Your task to perform on an android device: Check the weather Image 0: 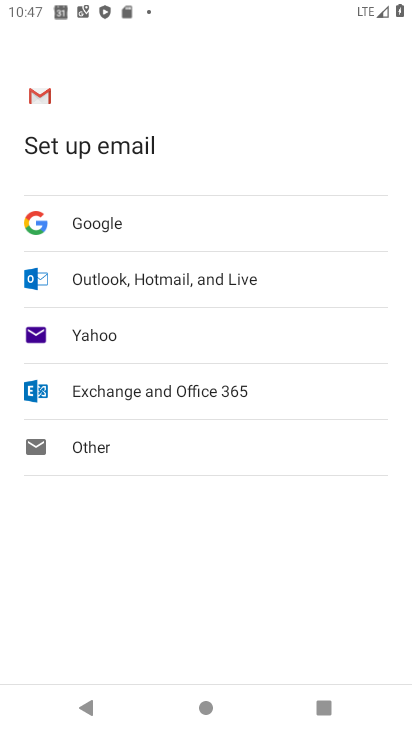
Step 0: press home button
Your task to perform on an android device: Check the weather Image 1: 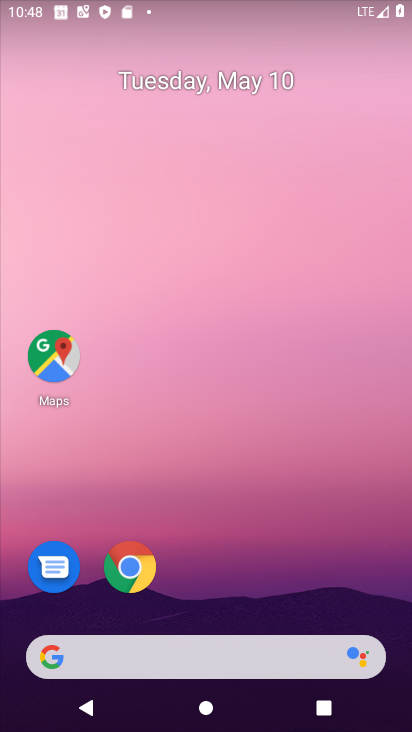
Step 1: click (100, 663)
Your task to perform on an android device: Check the weather Image 2: 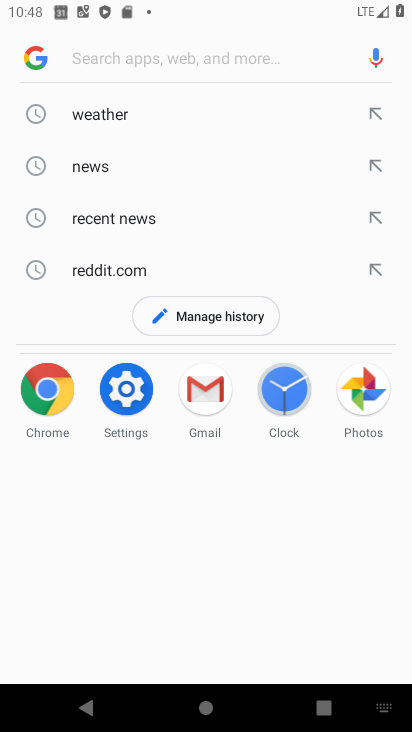
Step 2: click (137, 115)
Your task to perform on an android device: Check the weather Image 3: 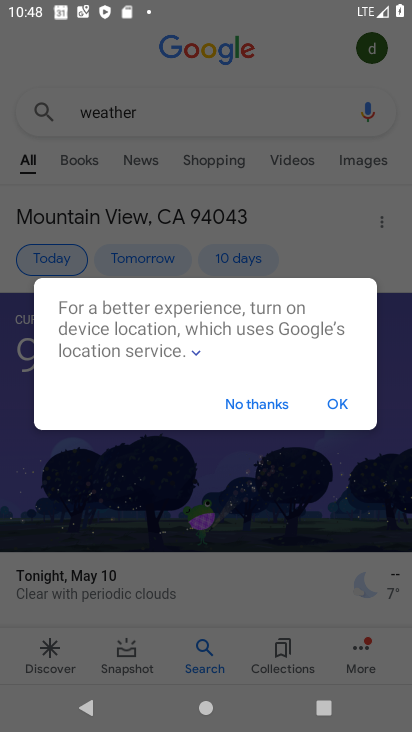
Step 3: click (249, 401)
Your task to perform on an android device: Check the weather Image 4: 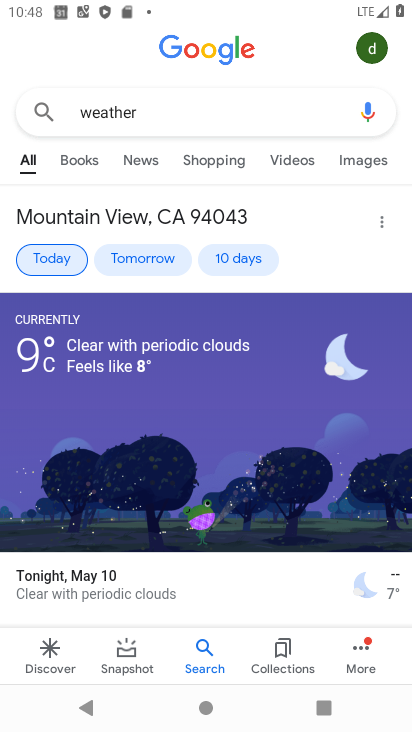
Step 4: task complete